Your task to perform on an android device: Open the web browser Image 0: 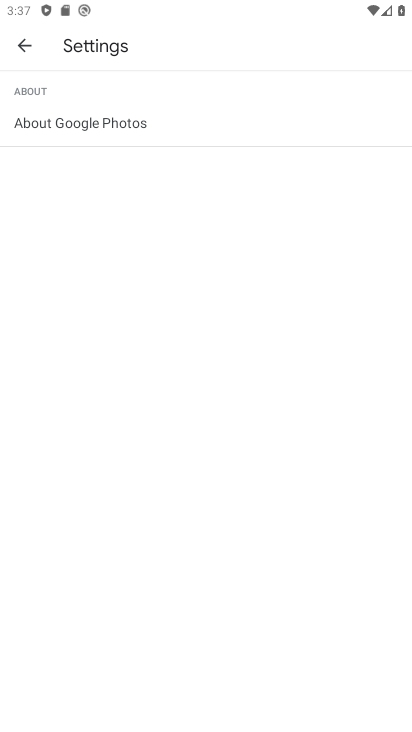
Step 0: press home button
Your task to perform on an android device: Open the web browser Image 1: 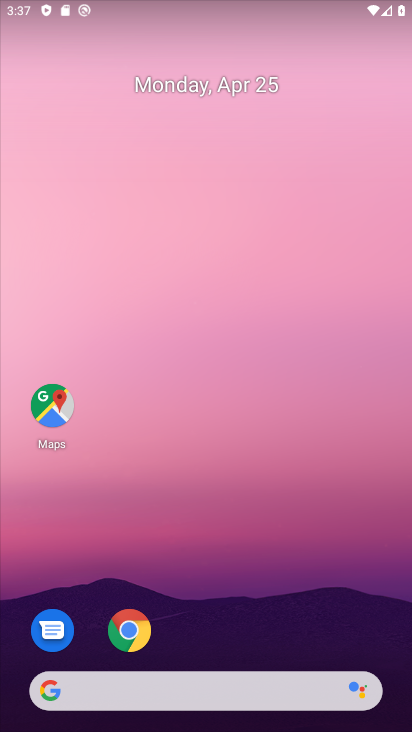
Step 1: drag from (245, 281) to (220, 132)
Your task to perform on an android device: Open the web browser Image 2: 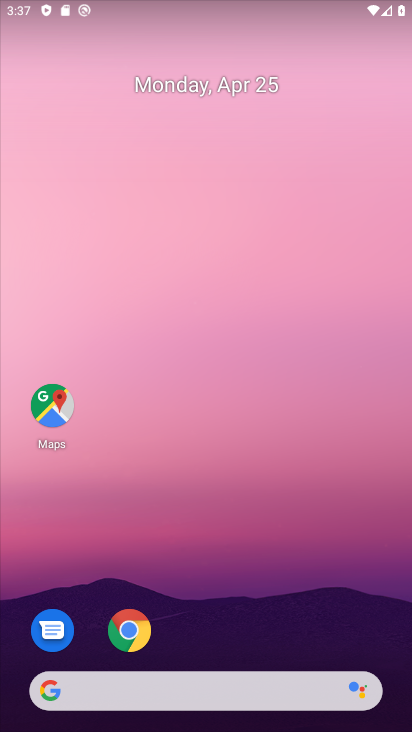
Step 2: drag from (296, 555) to (228, 20)
Your task to perform on an android device: Open the web browser Image 3: 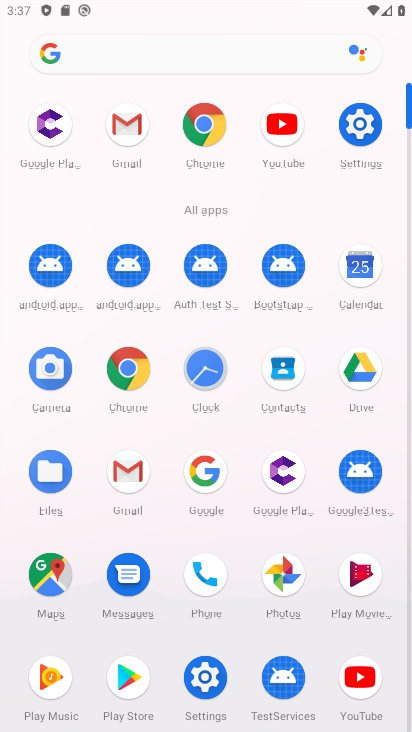
Step 3: click (191, 123)
Your task to perform on an android device: Open the web browser Image 4: 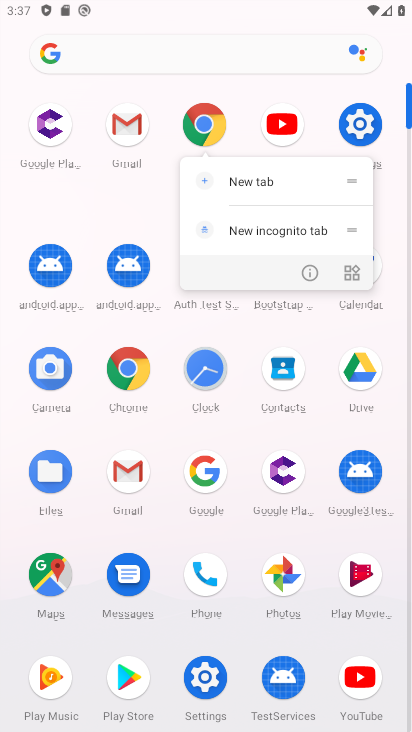
Step 4: click (184, 132)
Your task to perform on an android device: Open the web browser Image 5: 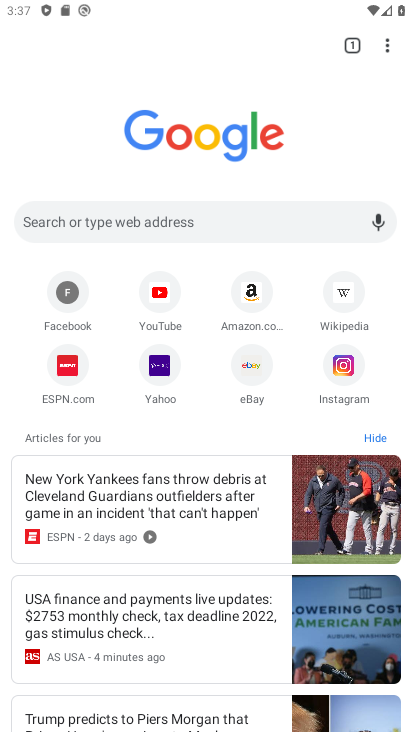
Step 5: task complete